Your task to perform on an android device: change the clock display to digital Image 0: 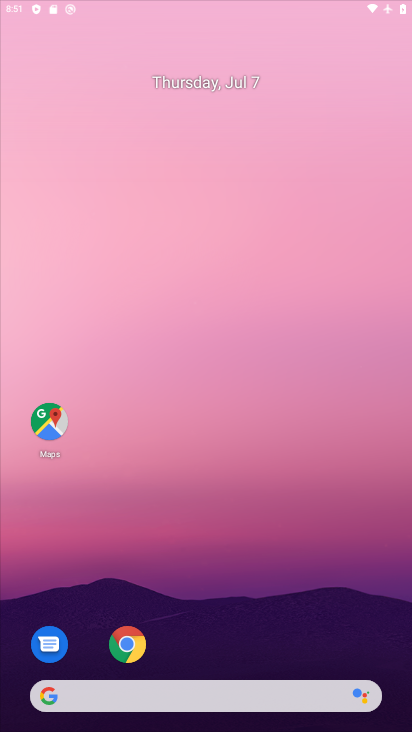
Step 0: drag from (232, 686) to (200, 261)
Your task to perform on an android device: change the clock display to digital Image 1: 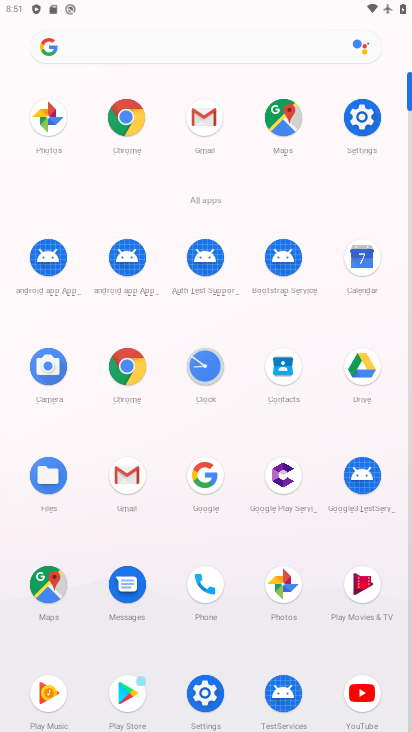
Step 1: click (206, 373)
Your task to perform on an android device: change the clock display to digital Image 2: 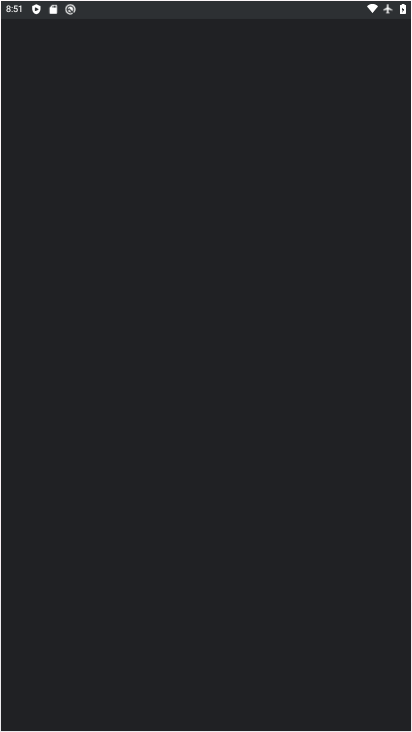
Step 2: click (209, 366)
Your task to perform on an android device: change the clock display to digital Image 3: 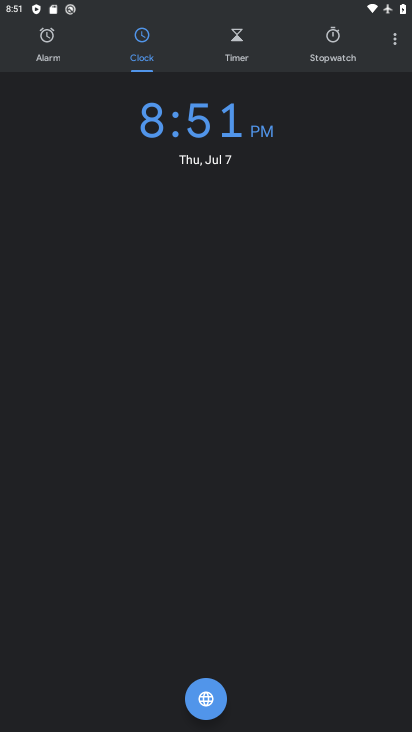
Step 3: click (387, 41)
Your task to perform on an android device: change the clock display to digital Image 4: 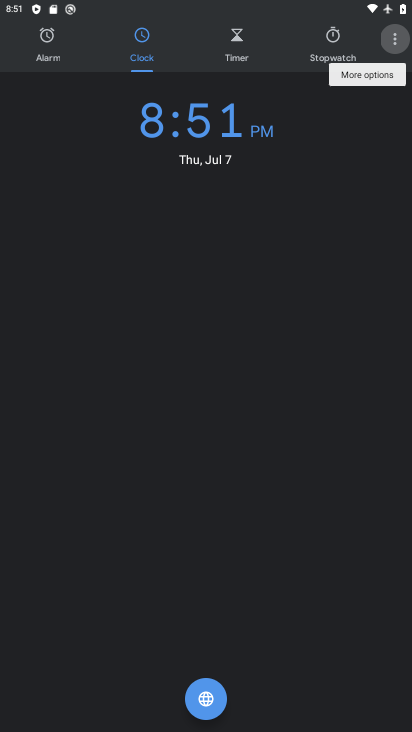
Step 4: click (383, 54)
Your task to perform on an android device: change the clock display to digital Image 5: 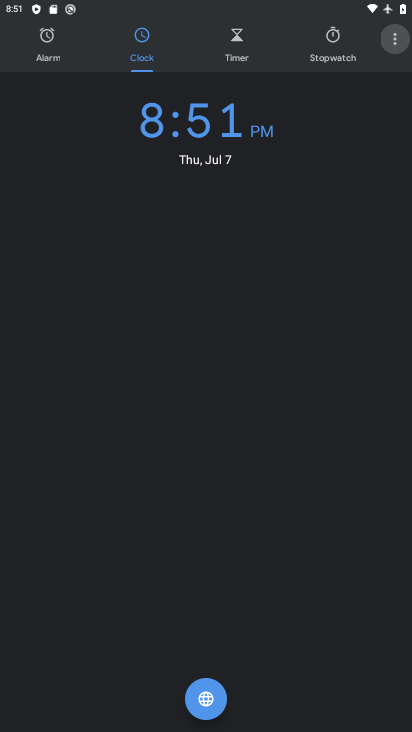
Step 5: drag from (388, 54) to (284, 80)
Your task to perform on an android device: change the clock display to digital Image 6: 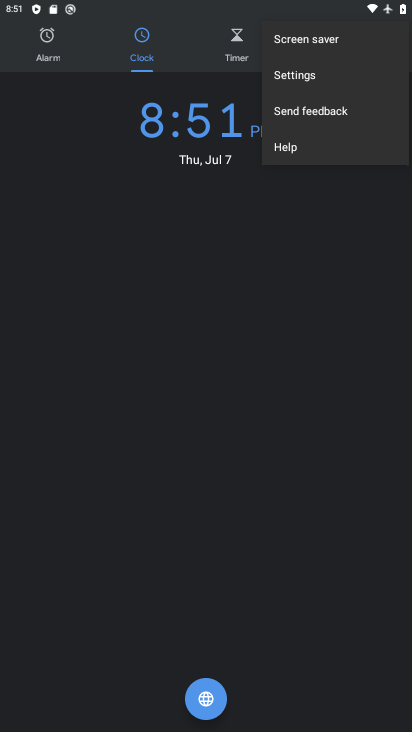
Step 6: click (285, 80)
Your task to perform on an android device: change the clock display to digital Image 7: 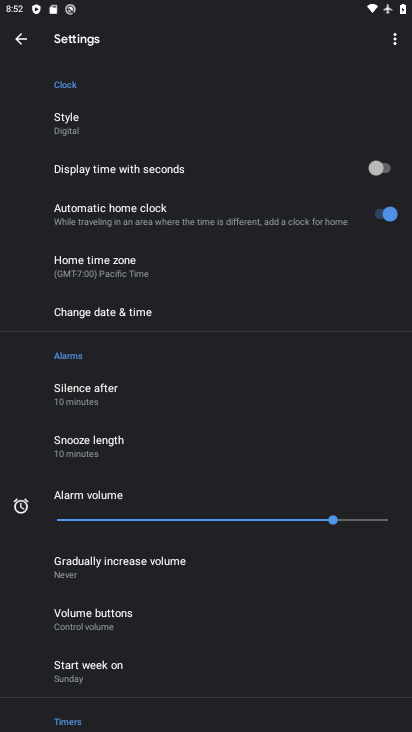
Step 7: click (66, 133)
Your task to perform on an android device: change the clock display to digital Image 8: 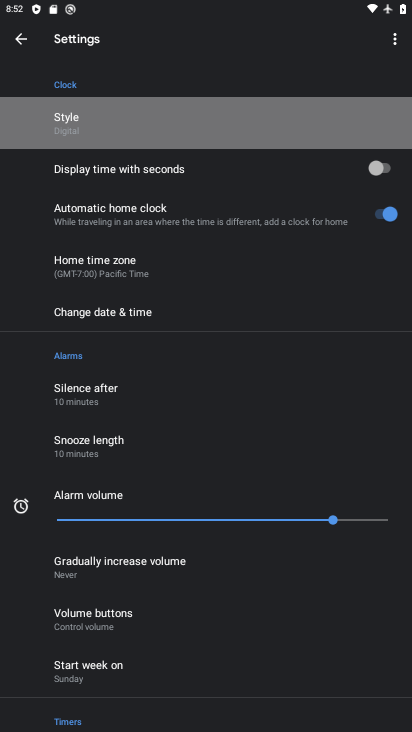
Step 8: click (68, 131)
Your task to perform on an android device: change the clock display to digital Image 9: 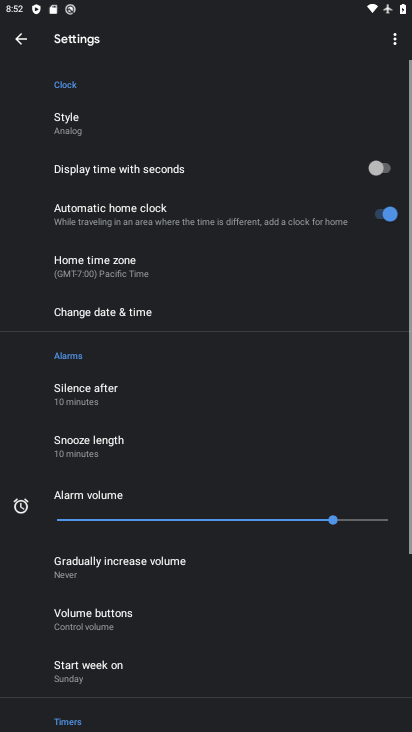
Step 9: click (90, 134)
Your task to perform on an android device: change the clock display to digital Image 10: 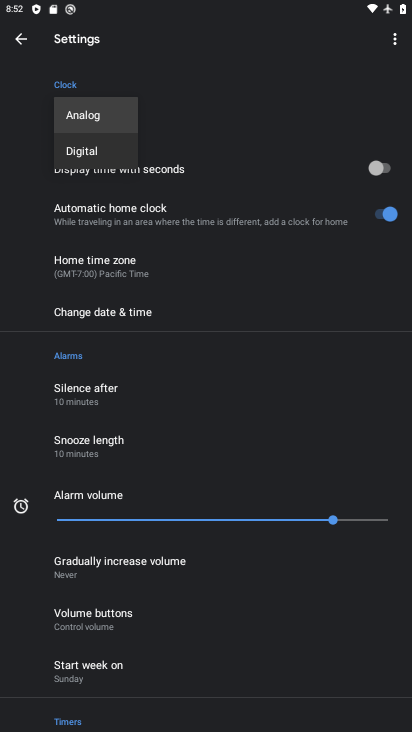
Step 10: click (76, 153)
Your task to perform on an android device: change the clock display to digital Image 11: 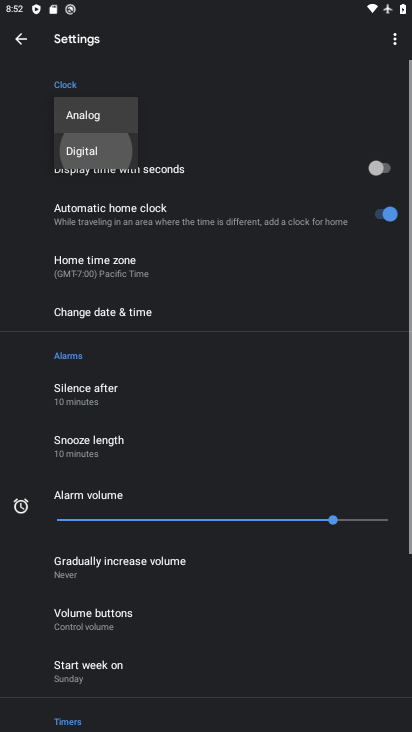
Step 11: click (76, 153)
Your task to perform on an android device: change the clock display to digital Image 12: 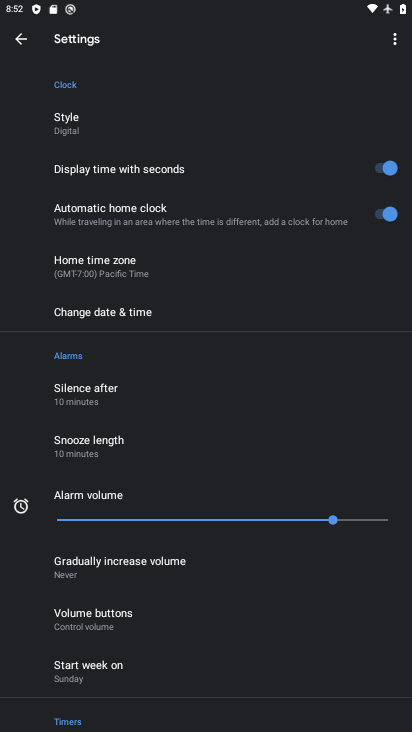
Step 12: task complete